Your task to perform on an android device: toggle sleep mode Image 0: 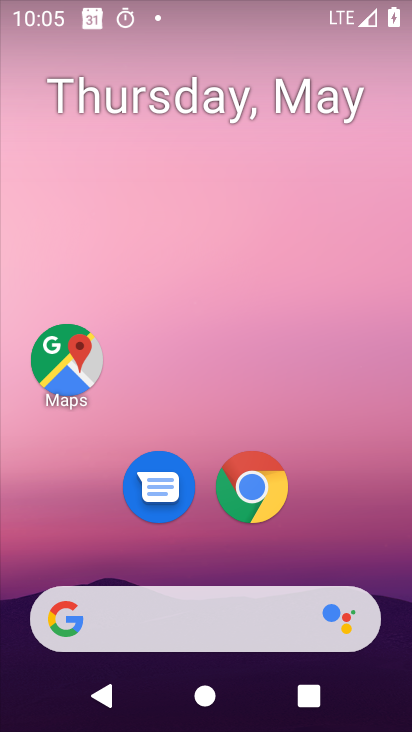
Step 0: drag from (249, 584) to (313, 90)
Your task to perform on an android device: toggle sleep mode Image 1: 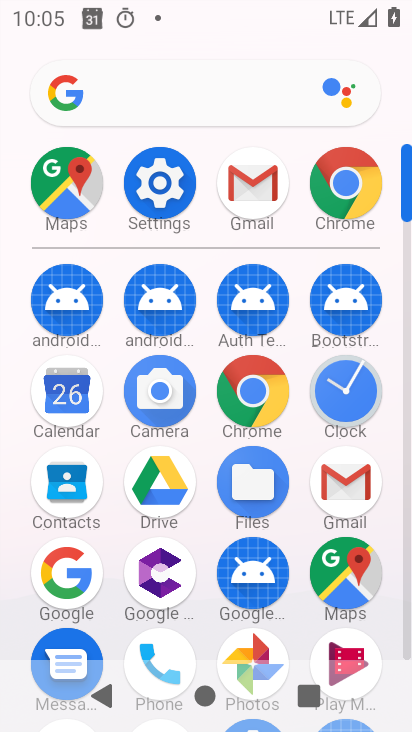
Step 1: click (154, 178)
Your task to perform on an android device: toggle sleep mode Image 2: 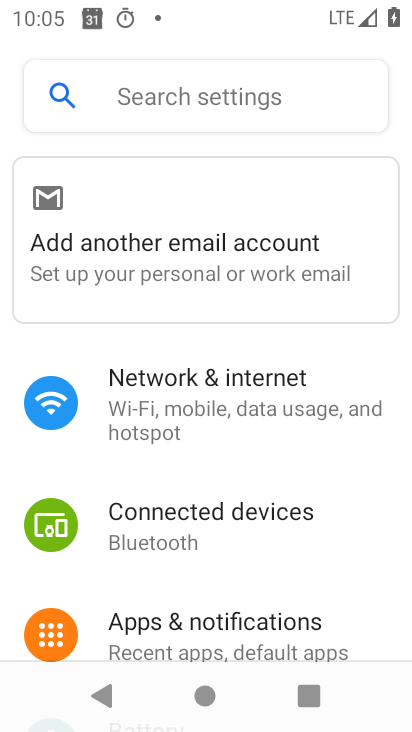
Step 2: drag from (218, 532) to (224, 224)
Your task to perform on an android device: toggle sleep mode Image 3: 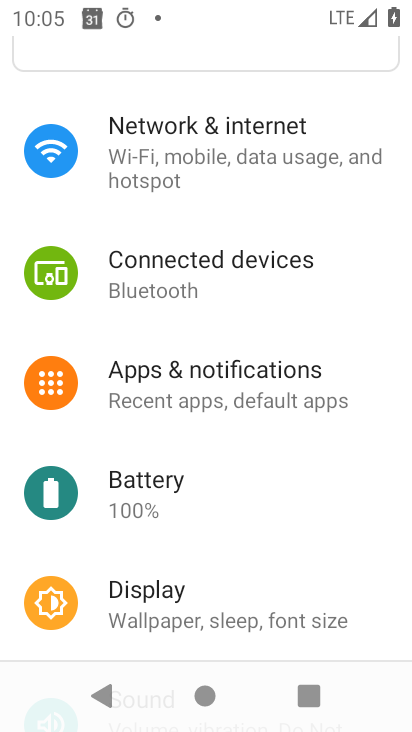
Step 3: click (209, 599)
Your task to perform on an android device: toggle sleep mode Image 4: 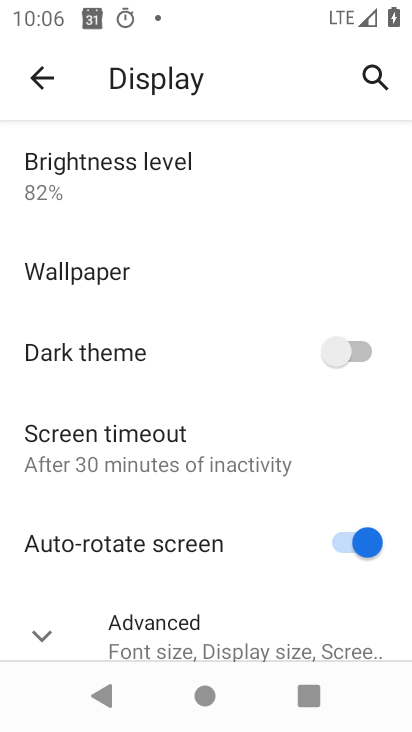
Step 4: click (155, 638)
Your task to perform on an android device: toggle sleep mode Image 5: 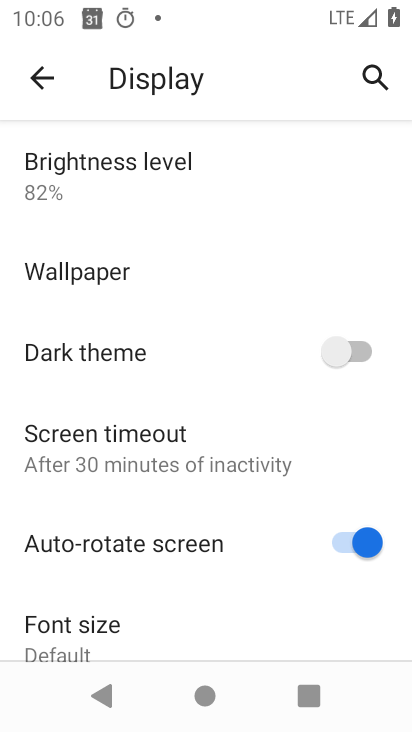
Step 5: task complete